Your task to perform on an android device: Open Wikipedia Image 0: 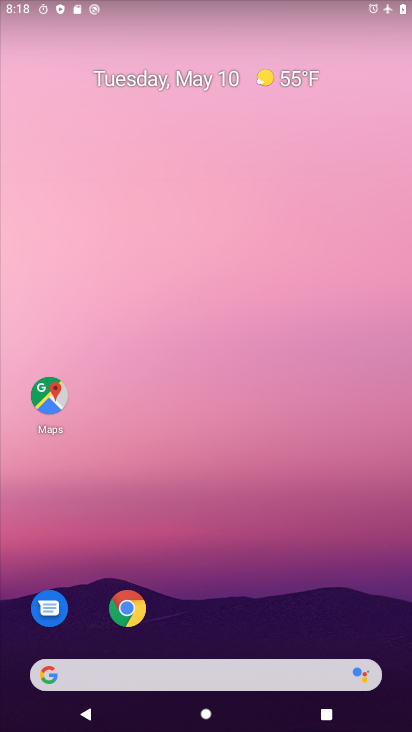
Step 0: click (127, 608)
Your task to perform on an android device: Open Wikipedia Image 1: 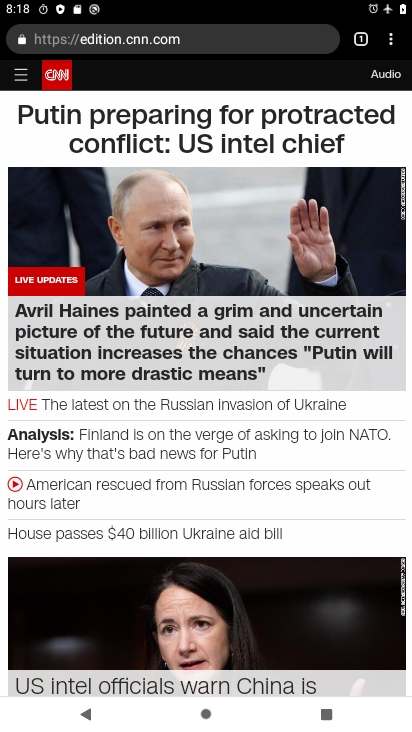
Step 1: click (313, 47)
Your task to perform on an android device: Open Wikipedia Image 2: 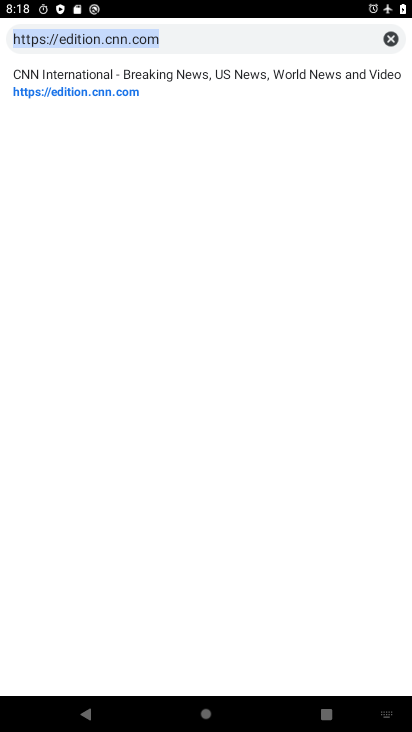
Step 2: click (343, 42)
Your task to perform on an android device: Open Wikipedia Image 3: 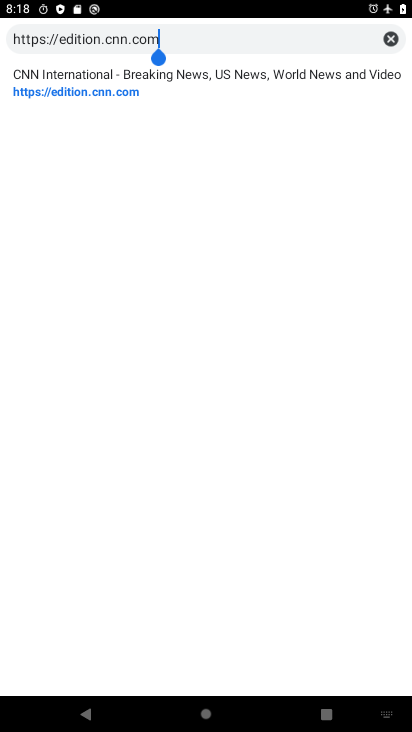
Step 3: click (393, 38)
Your task to perform on an android device: Open Wikipedia Image 4: 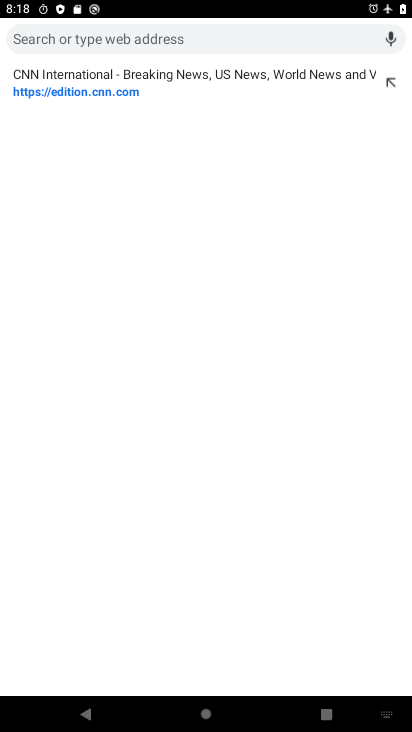
Step 4: click (330, 40)
Your task to perform on an android device: Open Wikipedia Image 5: 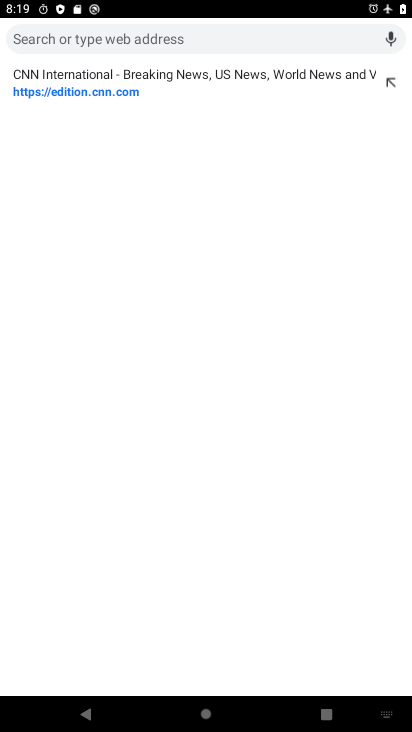
Step 5: type "Wikipedia"
Your task to perform on an android device: Open Wikipedia Image 6: 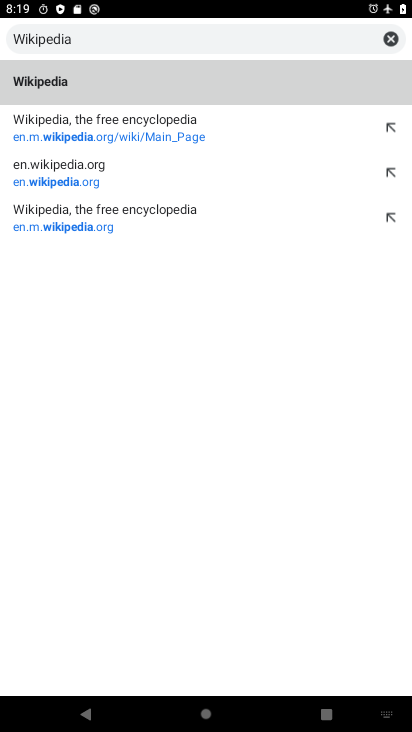
Step 6: click (24, 85)
Your task to perform on an android device: Open Wikipedia Image 7: 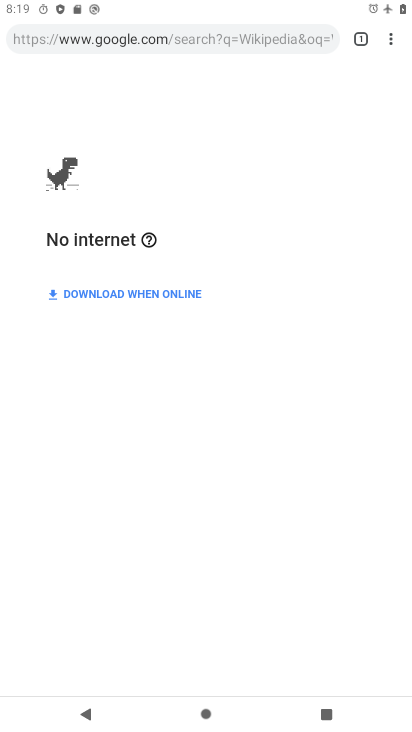
Step 7: task complete